Your task to perform on an android device: check out phone information Image 0: 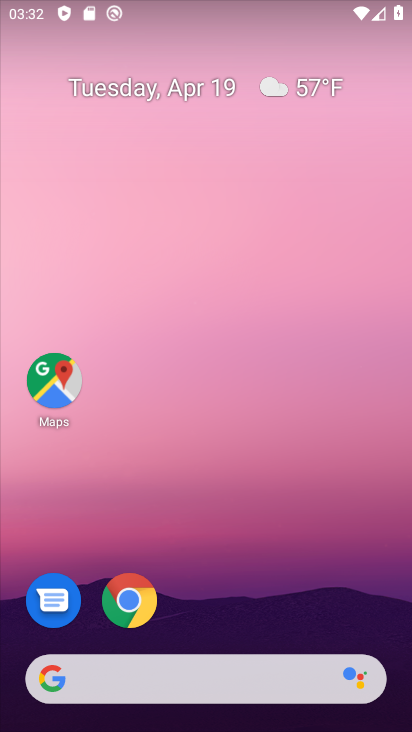
Step 0: drag from (366, 564) to (272, 250)
Your task to perform on an android device: check out phone information Image 1: 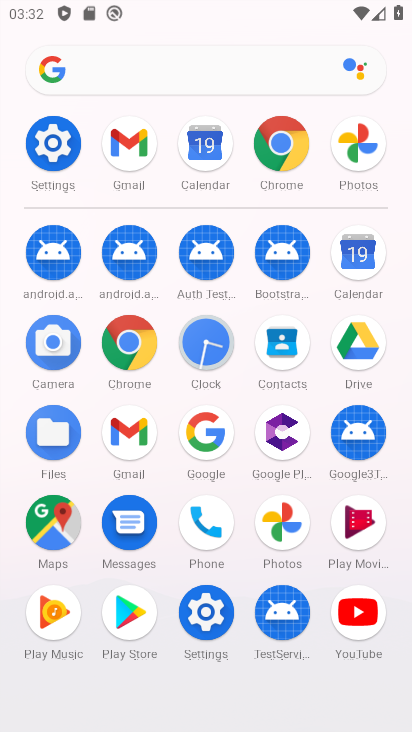
Step 1: click (54, 133)
Your task to perform on an android device: check out phone information Image 2: 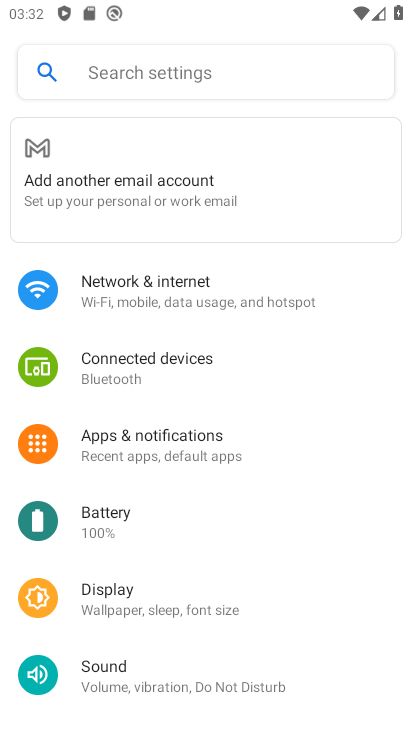
Step 2: drag from (298, 629) to (222, 349)
Your task to perform on an android device: check out phone information Image 3: 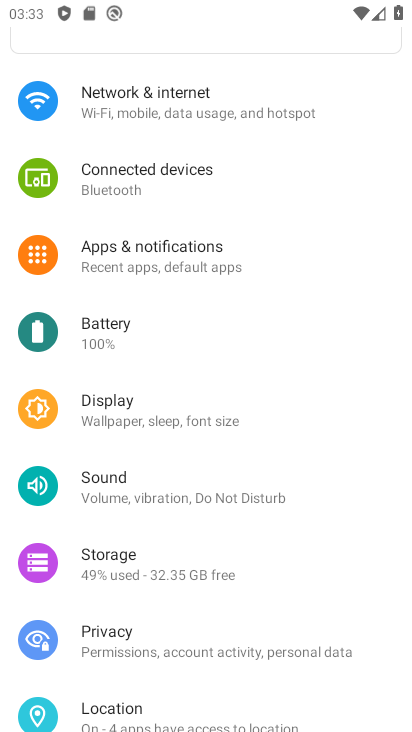
Step 3: drag from (293, 685) to (301, 209)
Your task to perform on an android device: check out phone information Image 4: 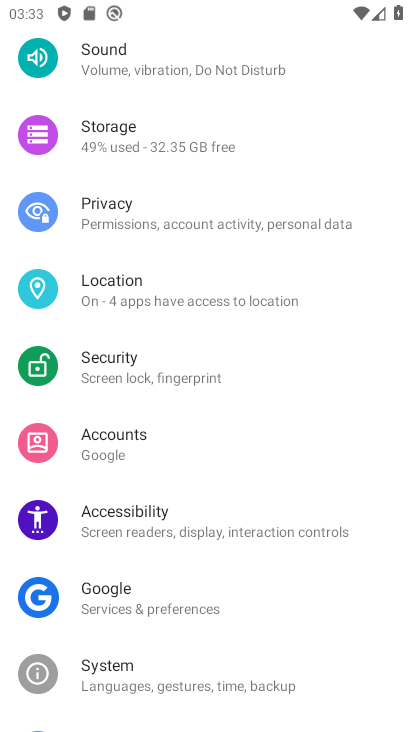
Step 4: click (309, 676)
Your task to perform on an android device: check out phone information Image 5: 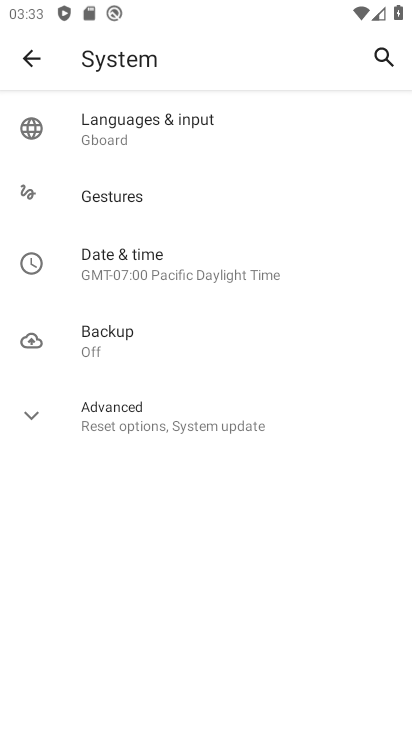
Step 5: press back button
Your task to perform on an android device: check out phone information Image 6: 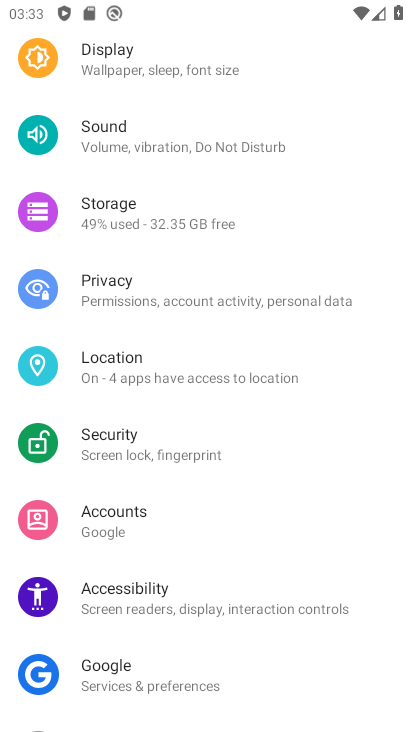
Step 6: drag from (376, 667) to (333, 332)
Your task to perform on an android device: check out phone information Image 7: 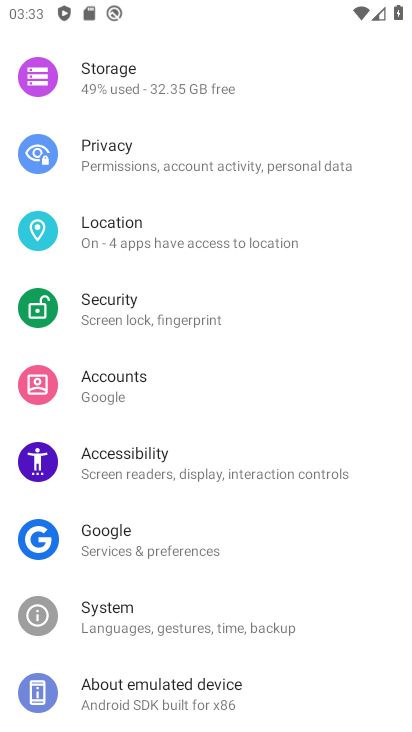
Step 7: click (318, 706)
Your task to perform on an android device: check out phone information Image 8: 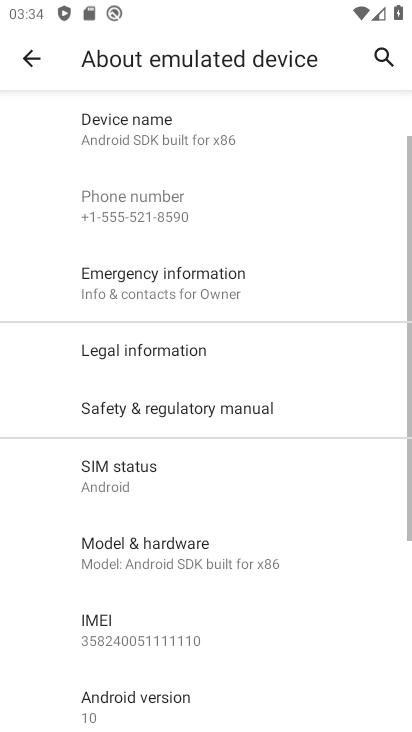
Step 8: task complete